Your task to perform on an android device: Open eBay Image 0: 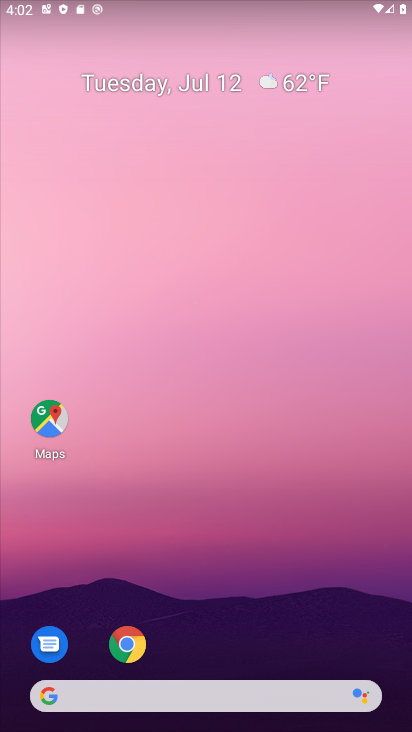
Step 0: click (136, 635)
Your task to perform on an android device: Open eBay Image 1: 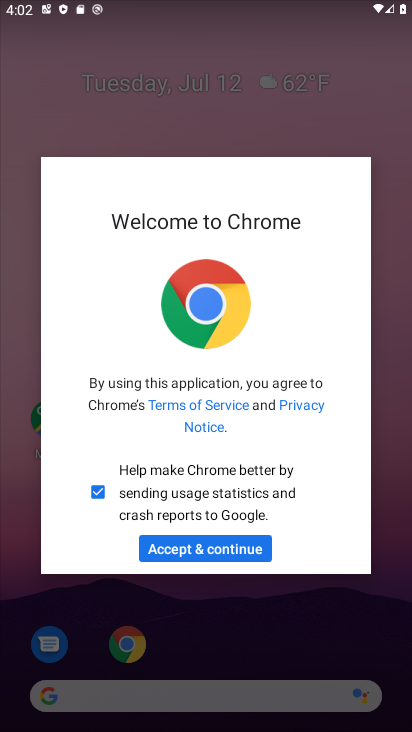
Step 1: click (223, 557)
Your task to perform on an android device: Open eBay Image 2: 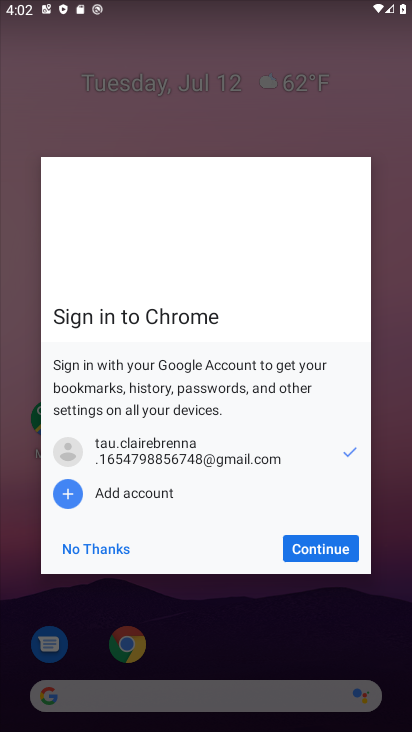
Step 2: click (223, 545)
Your task to perform on an android device: Open eBay Image 3: 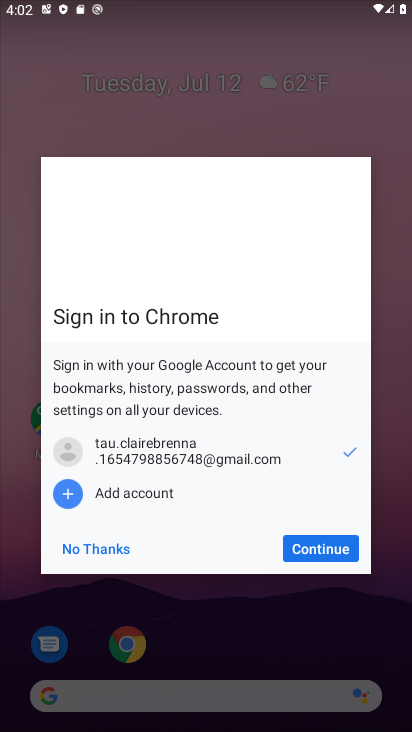
Step 3: click (310, 545)
Your task to perform on an android device: Open eBay Image 4: 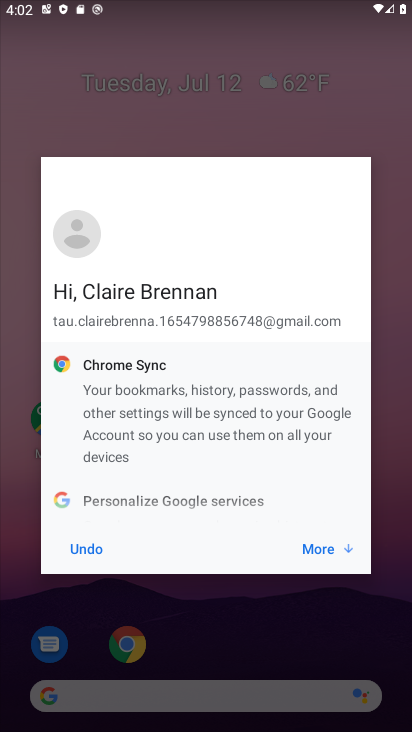
Step 4: click (310, 545)
Your task to perform on an android device: Open eBay Image 5: 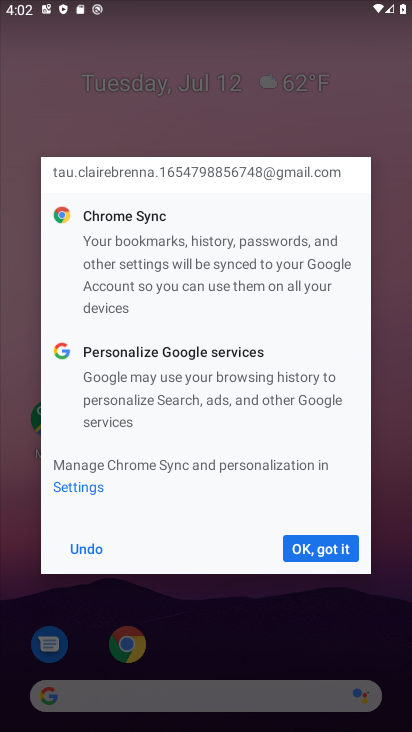
Step 5: click (310, 545)
Your task to perform on an android device: Open eBay Image 6: 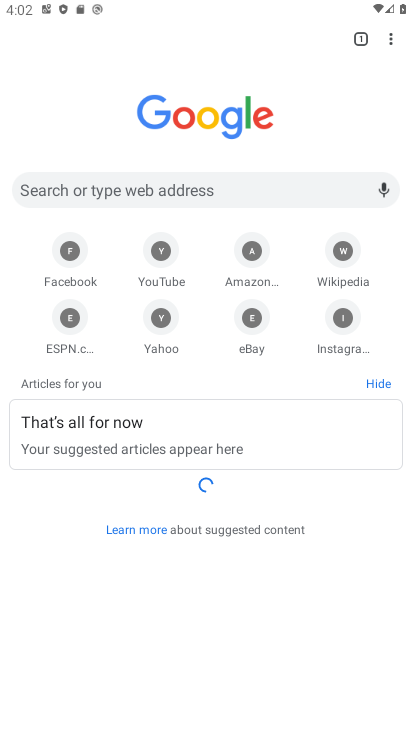
Step 6: click (257, 322)
Your task to perform on an android device: Open eBay Image 7: 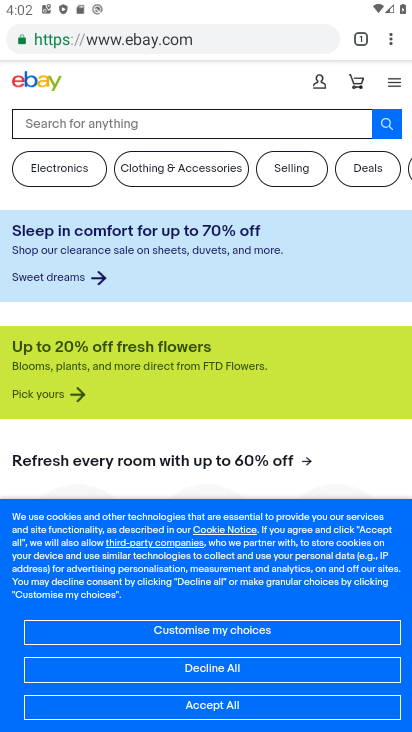
Step 7: task complete